Your task to perform on an android device: show emergency info Image 0: 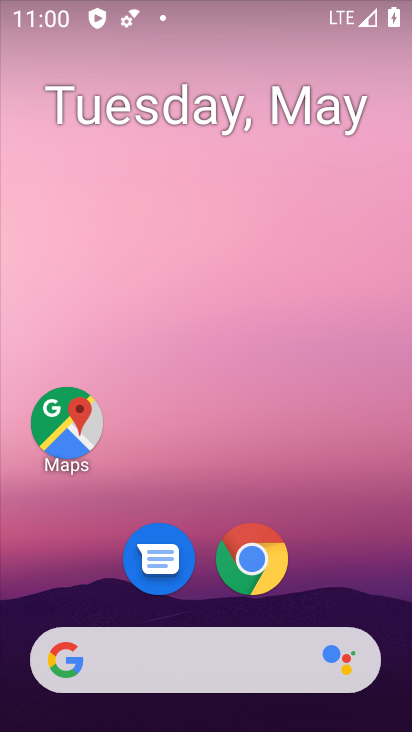
Step 0: drag from (348, 576) to (343, 202)
Your task to perform on an android device: show emergency info Image 1: 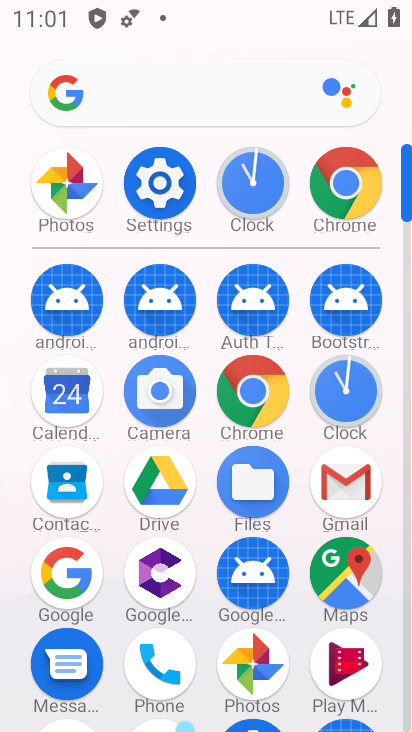
Step 1: click (161, 197)
Your task to perform on an android device: show emergency info Image 2: 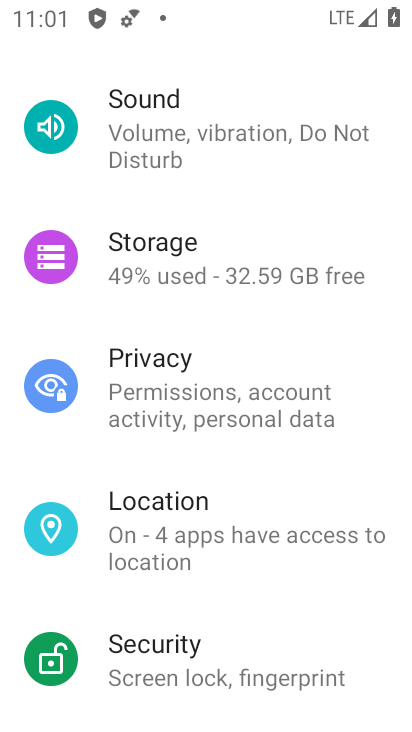
Step 2: drag from (249, 617) to (273, 201)
Your task to perform on an android device: show emergency info Image 3: 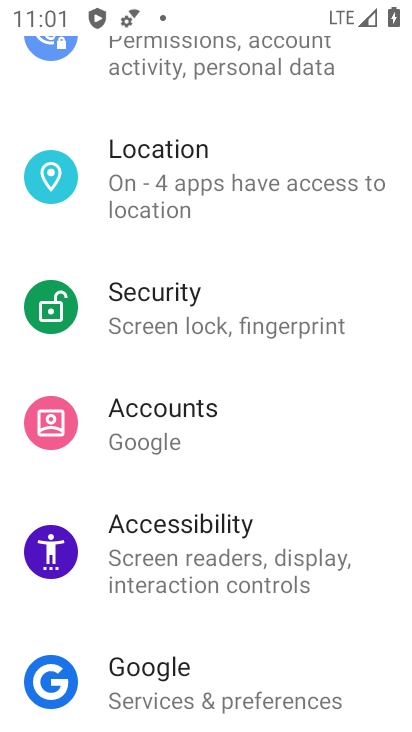
Step 3: drag from (260, 647) to (251, 213)
Your task to perform on an android device: show emergency info Image 4: 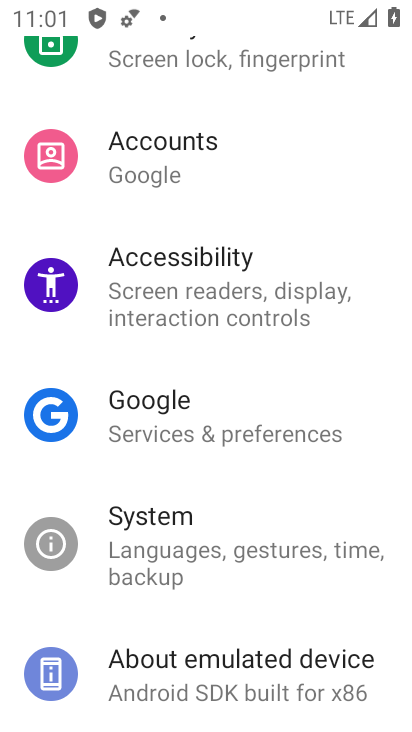
Step 4: drag from (255, 652) to (276, 247)
Your task to perform on an android device: show emergency info Image 5: 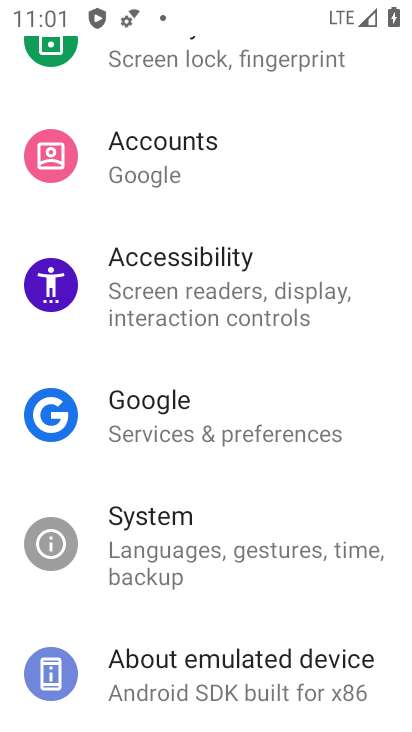
Step 5: click (247, 672)
Your task to perform on an android device: show emergency info Image 6: 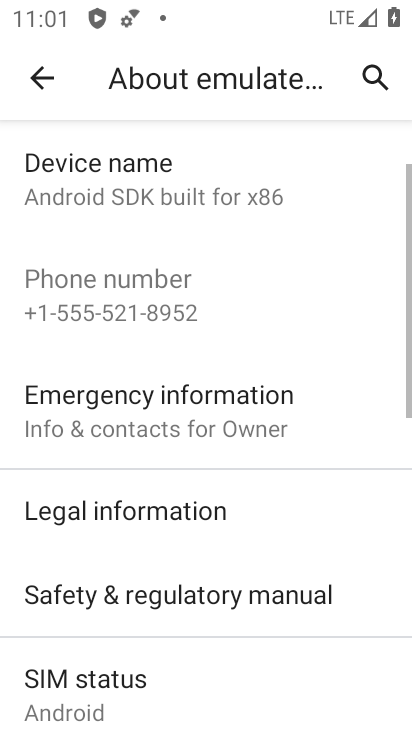
Step 6: click (247, 427)
Your task to perform on an android device: show emergency info Image 7: 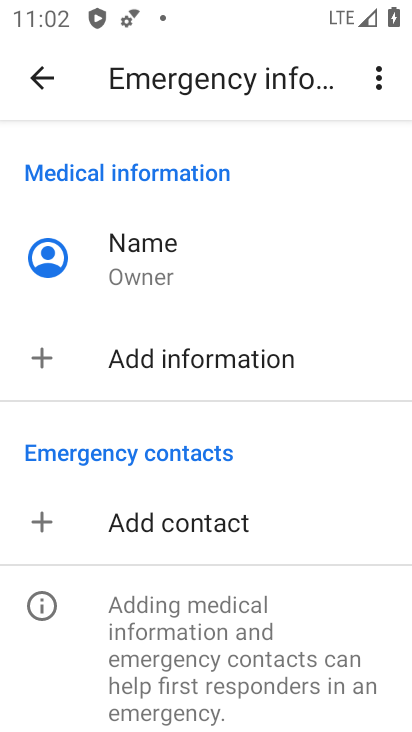
Step 7: task complete